Your task to perform on an android device: turn on notifications settings in the gmail app Image 0: 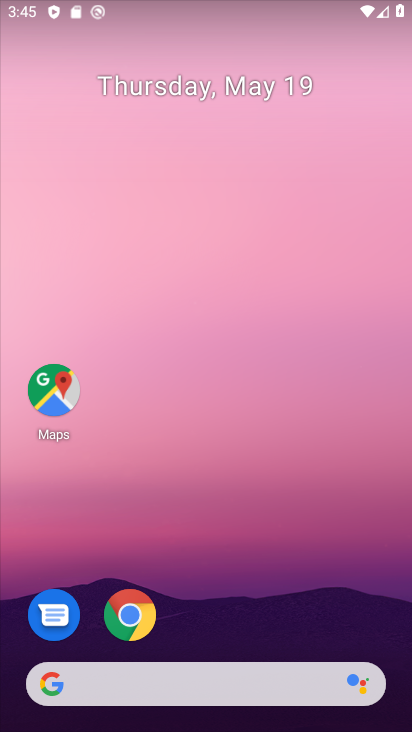
Step 0: drag from (335, 652) to (356, 7)
Your task to perform on an android device: turn on notifications settings in the gmail app Image 1: 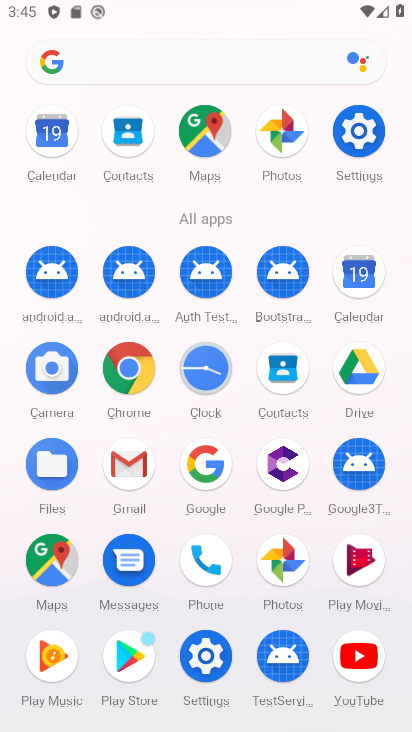
Step 1: click (128, 463)
Your task to perform on an android device: turn on notifications settings in the gmail app Image 2: 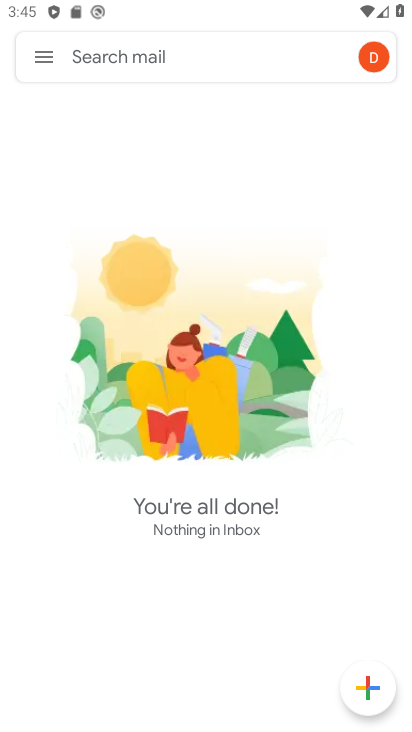
Step 2: click (42, 68)
Your task to perform on an android device: turn on notifications settings in the gmail app Image 3: 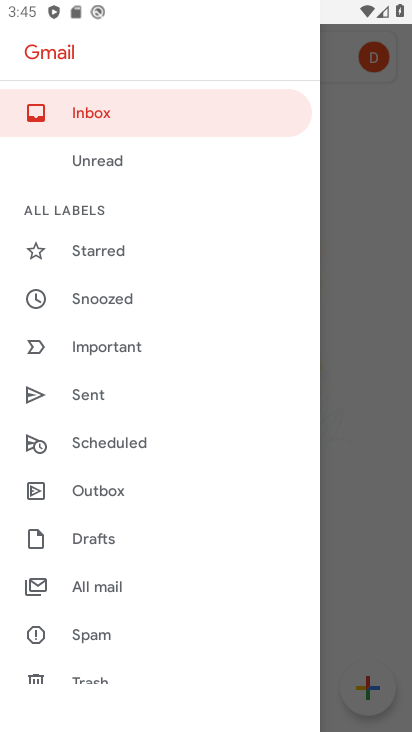
Step 3: drag from (153, 583) to (149, 205)
Your task to perform on an android device: turn on notifications settings in the gmail app Image 4: 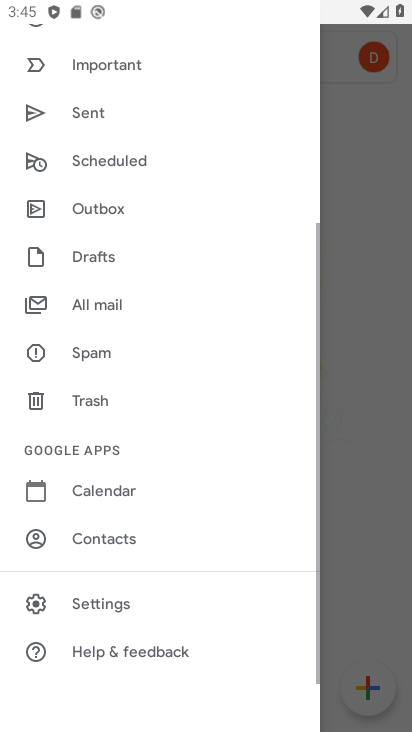
Step 4: click (90, 606)
Your task to perform on an android device: turn on notifications settings in the gmail app Image 5: 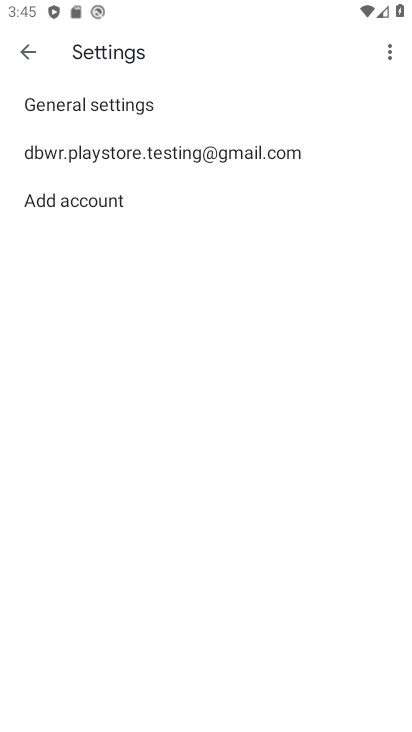
Step 5: click (54, 113)
Your task to perform on an android device: turn on notifications settings in the gmail app Image 6: 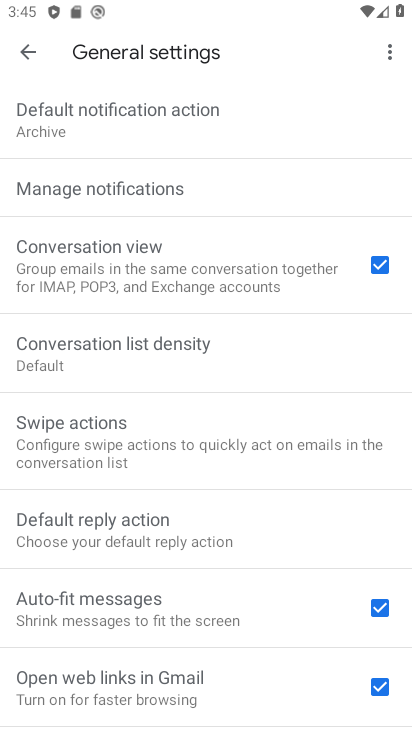
Step 6: click (86, 186)
Your task to perform on an android device: turn on notifications settings in the gmail app Image 7: 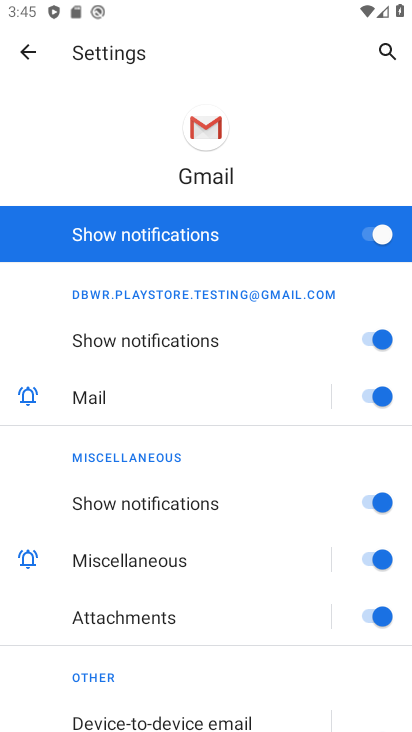
Step 7: task complete